Your task to perform on an android device: check the backup settings in the google photos Image 0: 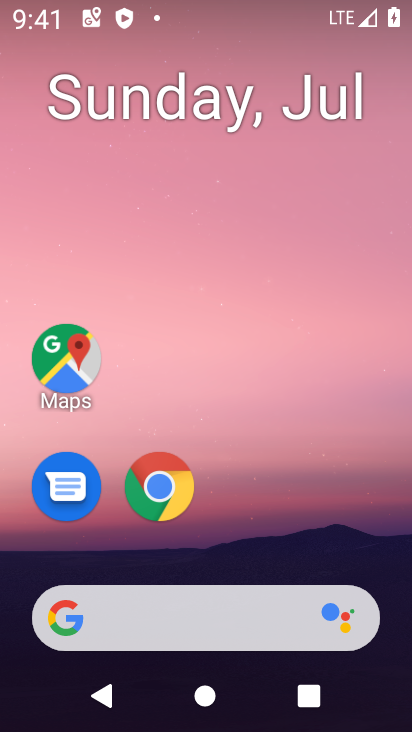
Step 0: press home button
Your task to perform on an android device: check the backup settings in the google photos Image 1: 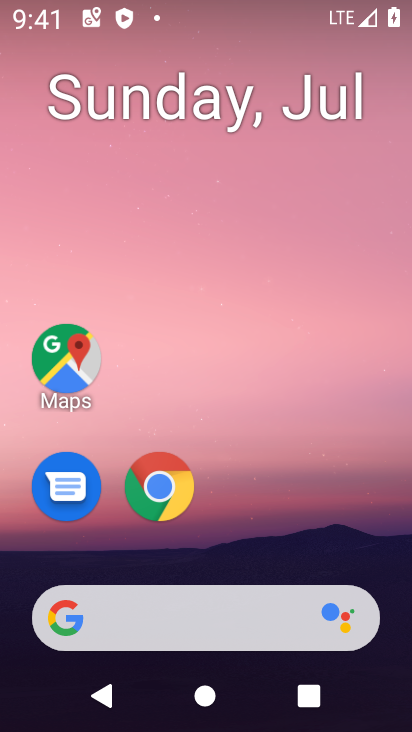
Step 1: drag from (361, 517) to (348, 86)
Your task to perform on an android device: check the backup settings in the google photos Image 2: 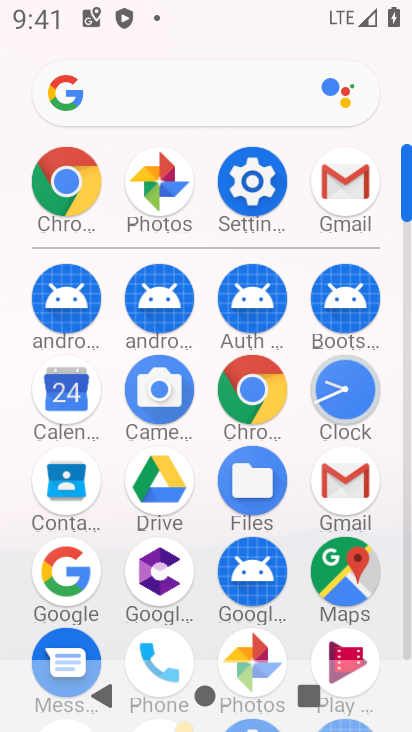
Step 2: drag from (389, 535) to (394, 283)
Your task to perform on an android device: check the backup settings in the google photos Image 3: 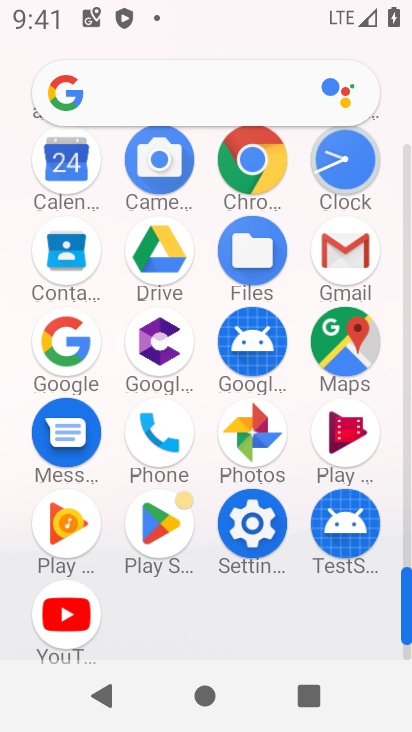
Step 3: click (243, 444)
Your task to perform on an android device: check the backup settings in the google photos Image 4: 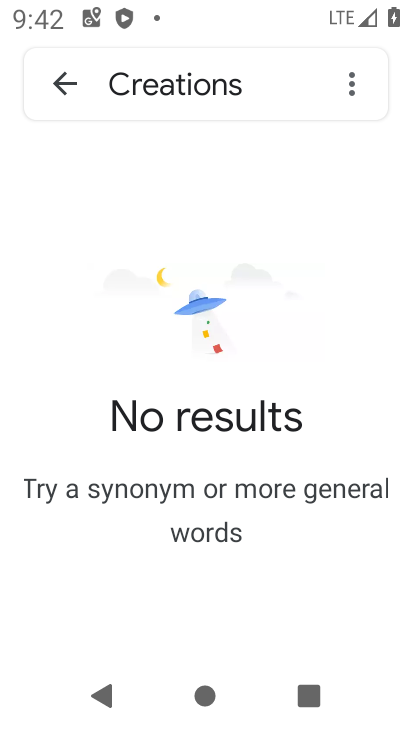
Step 4: press back button
Your task to perform on an android device: check the backup settings in the google photos Image 5: 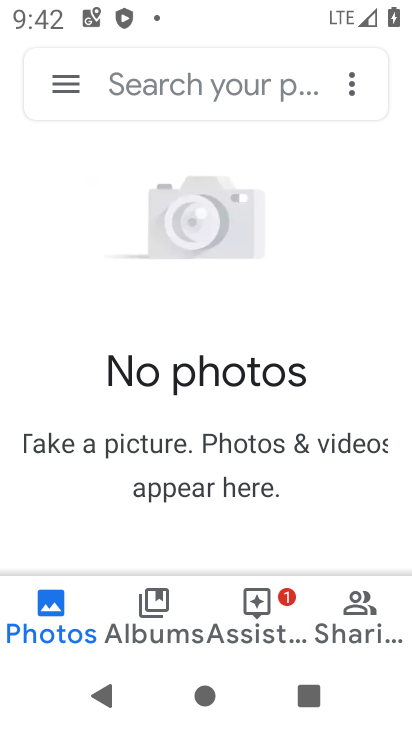
Step 5: click (69, 85)
Your task to perform on an android device: check the backup settings in the google photos Image 6: 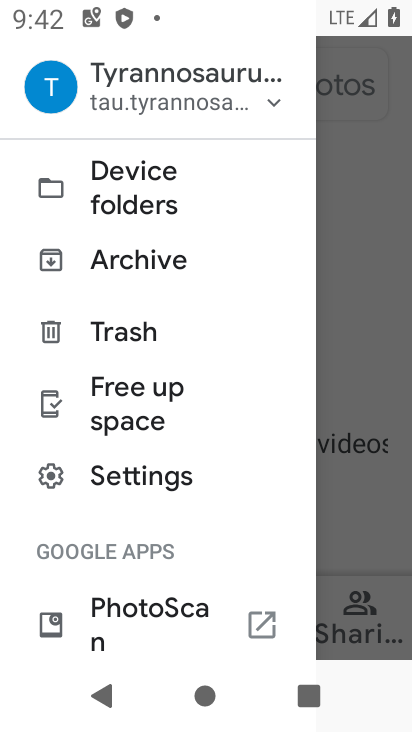
Step 6: click (179, 471)
Your task to perform on an android device: check the backup settings in the google photos Image 7: 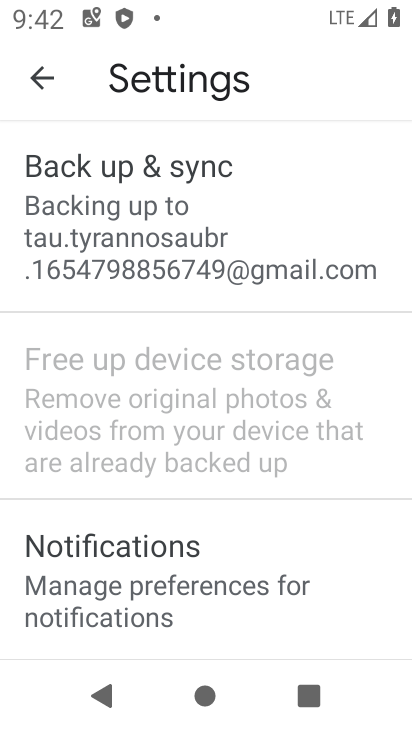
Step 7: click (270, 218)
Your task to perform on an android device: check the backup settings in the google photos Image 8: 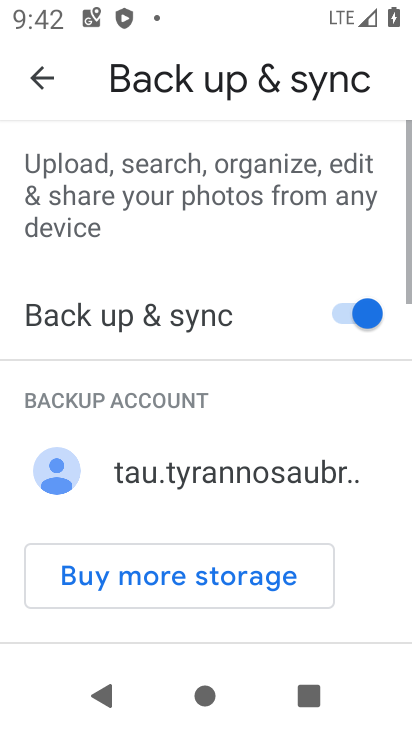
Step 8: task complete